Your task to perform on an android device: Open calendar and show me the second week of next month Image 0: 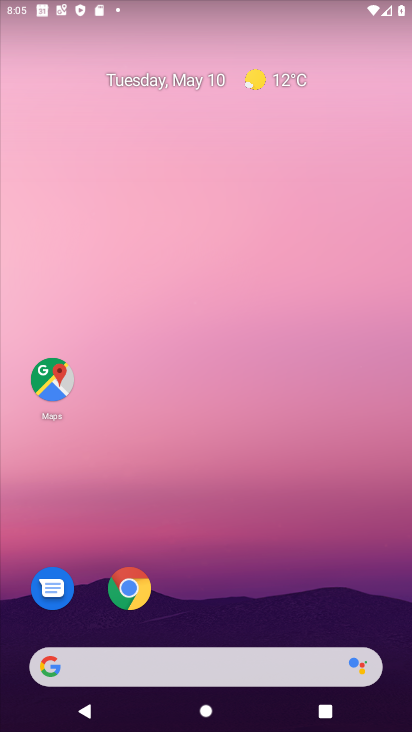
Step 0: click (202, 80)
Your task to perform on an android device: Open calendar and show me the second week of next month Image 1: 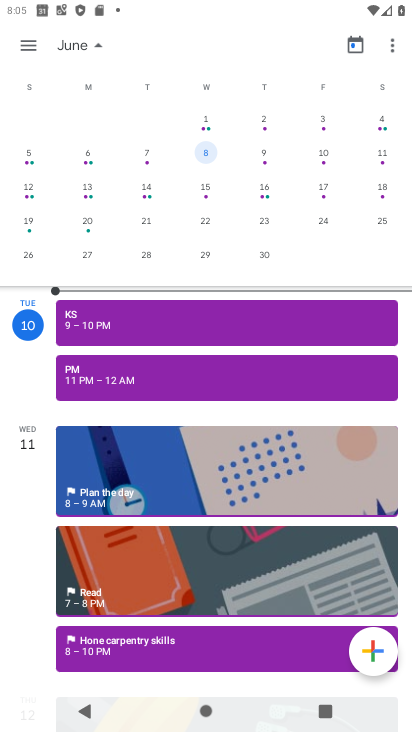
Step 1: drag from (356, 255) to (7, 207)
Your task to perform on an android device: Open calendar and show me the second week of next month Image 2: 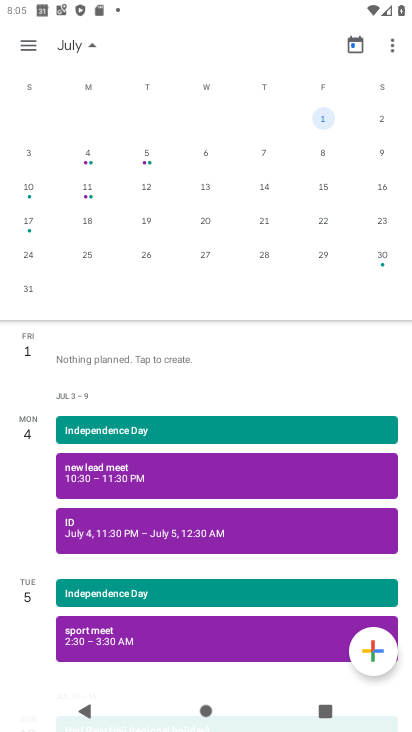
Step 2: drag from (37, 239) to (372, 225)
Your task to perform on an android device: Open calendar and show me the second week of next month Image 3: 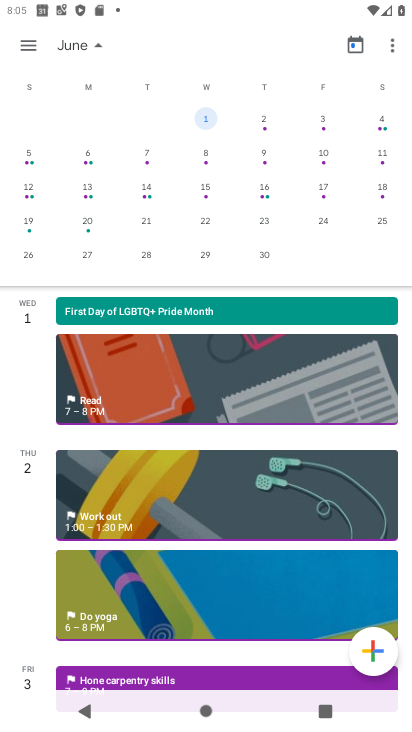
Step 3: click (204, 146)
Your task to perform on an android device: Open calendar and show me the second week of next month Image 4: 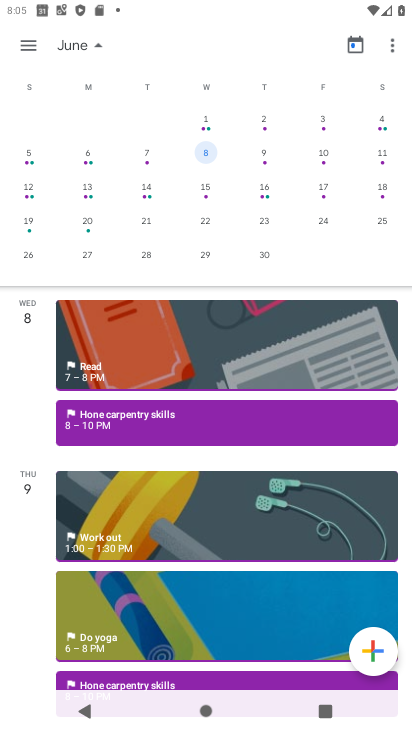
Step 4: task complete